Your task to perform on an android device: Open Chrome and go to the settings page Image 0: 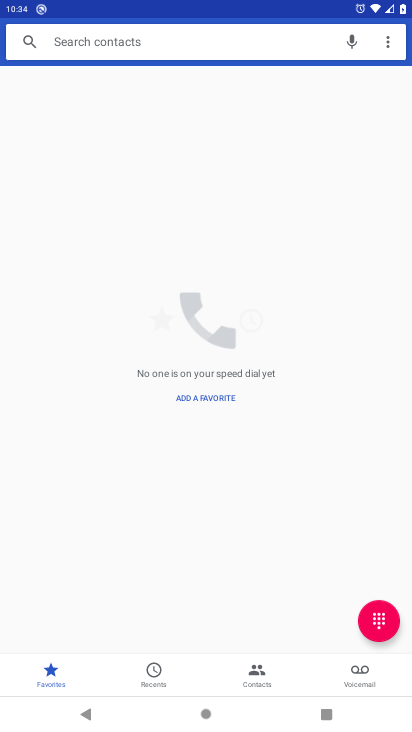
Step 0: press home button
Your task to perform on an android device: Open Chrome and go to the settings page Image 1: 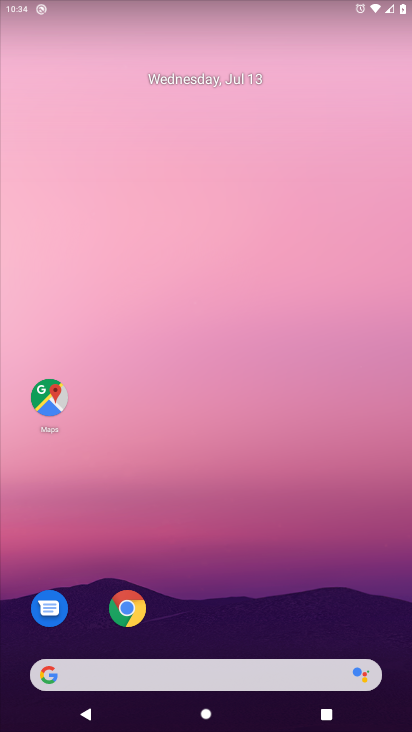
Step 1: click (126, 619)
Your task to perform on an android device: Open Chrome and go to the settings page Image 2: 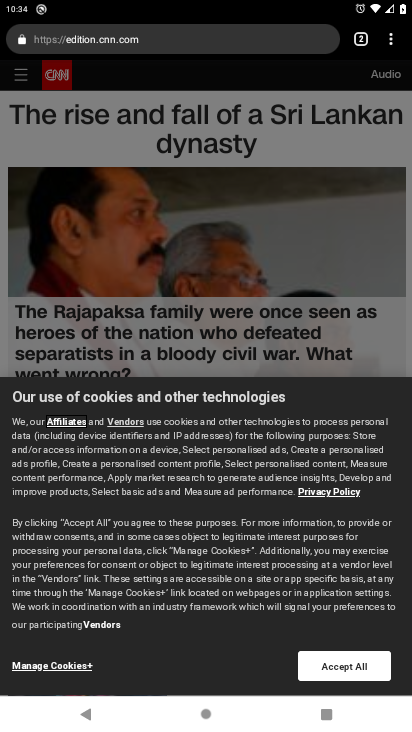
Step 2: click (387, 41)
Your task to perform on an android device: Open Chrome and go to the settings page Image 3: 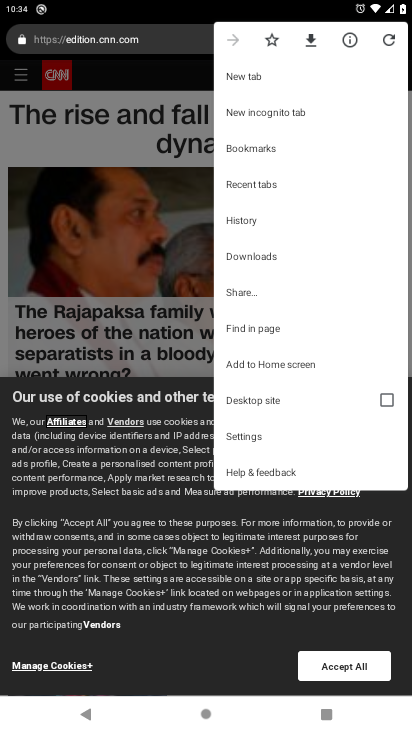
Step 3: click (268, 437)
Your task to perform on an android device: Open Chrome and go to the settings page Image 4: 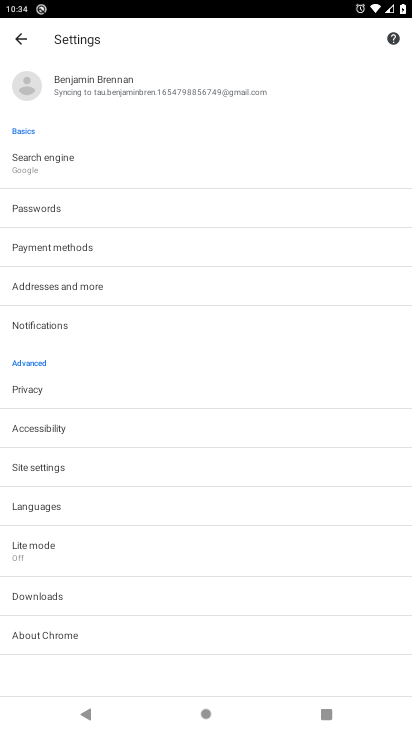
Step 4: task complete